Your task to perform on an android device: Search for pizza restaurants on Maps Image 0: 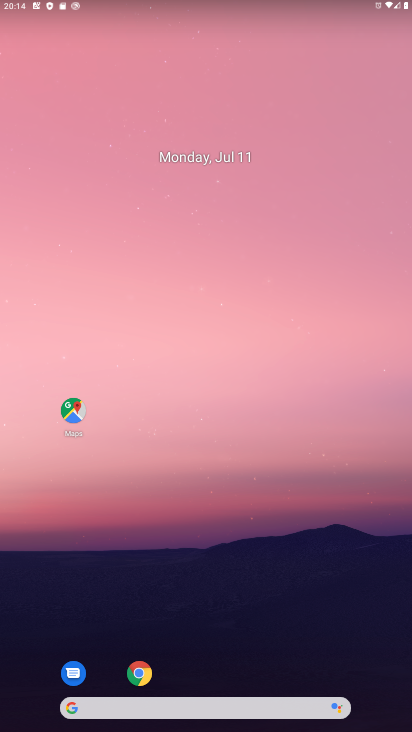
Step 0: click (70, 407)
Your task to perform on an android device: Search for pizza restaurants on Maps Image 1: 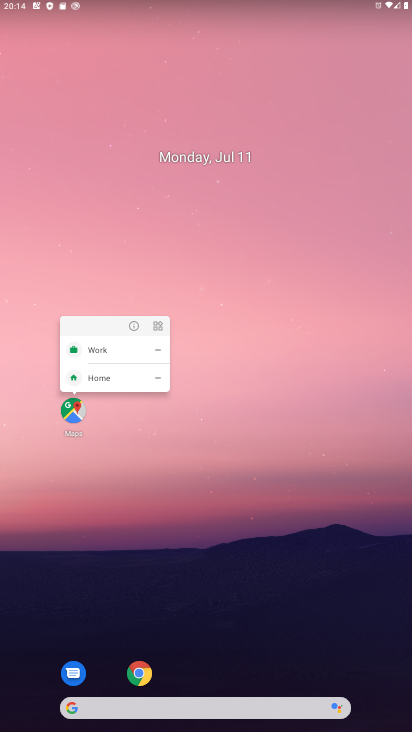
Step 1: click (70, 407)
Your task to perform on an android device: Search for pizza restaurants on Maps Image 2: 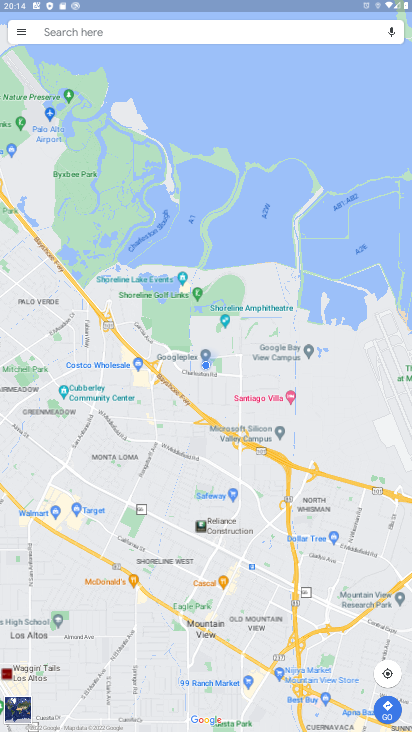
Step 2: click (96, 29)
Your task to perform on an android device: Search for pizza restaurants on Maps Image 3: 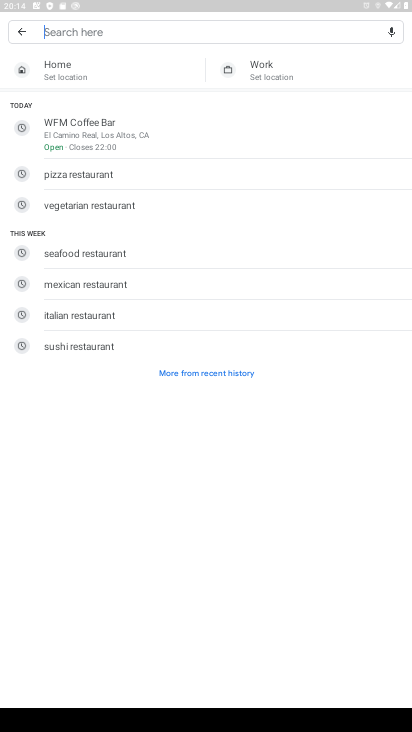
Step 3: click (111, 170)
Your task to perform on an android device: Search for pizza restaurants on Maps Image 4: 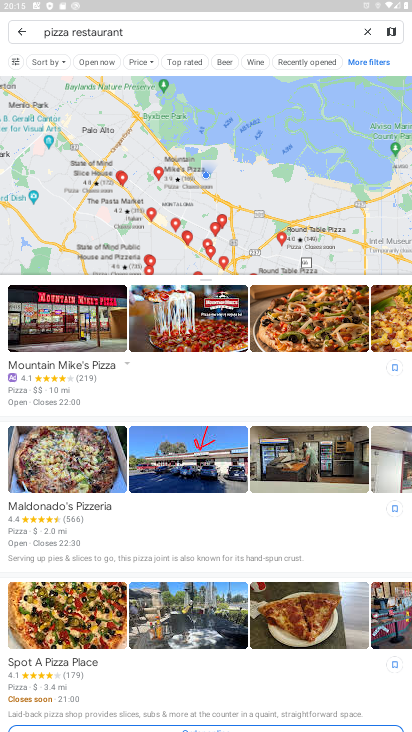
Step 4: task complete